Your task to perform on an android device: Go to eBay Image 0: 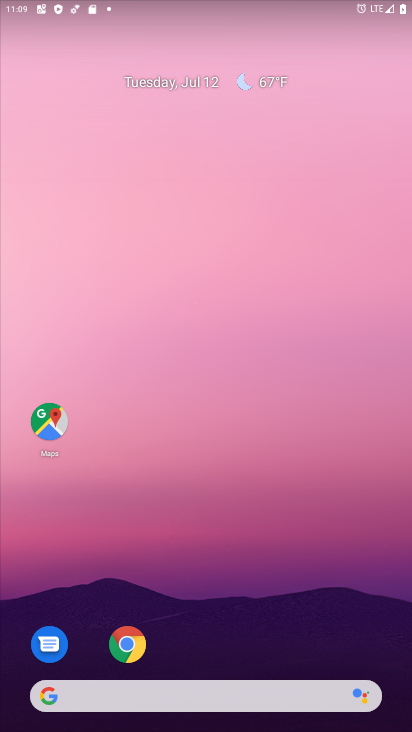
Step 0: drag from (191, 488) to (269, 62)
Your task to perform on an android device: Go to eBay Image 1: 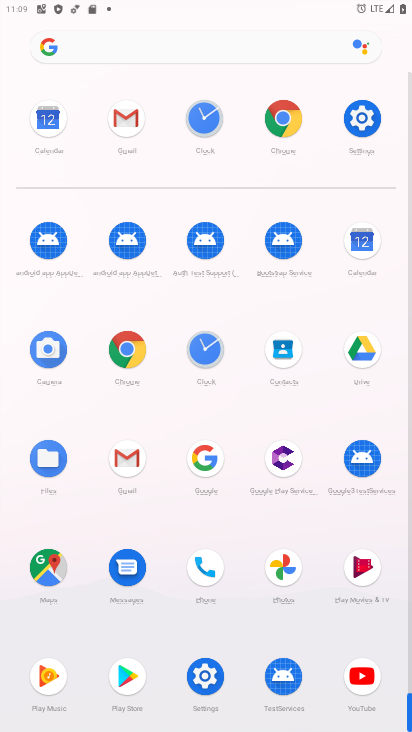
Step 1: click (101, 40)
Your task to perform on an android device: Go to eBay Image 2: 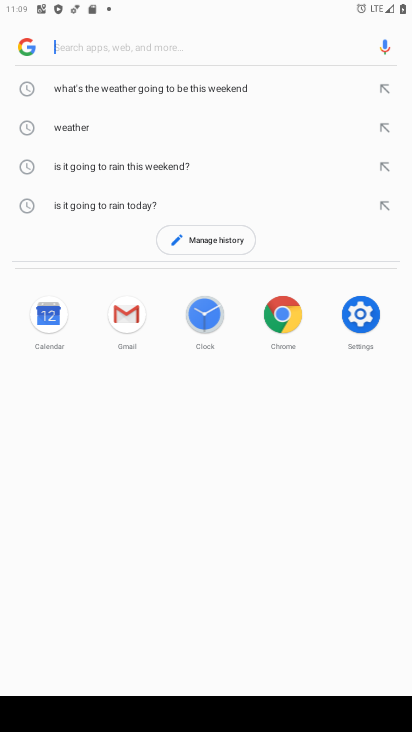
Step 2: type "ebay"
Your task to perform on an android device: Go to eBay Image 3: 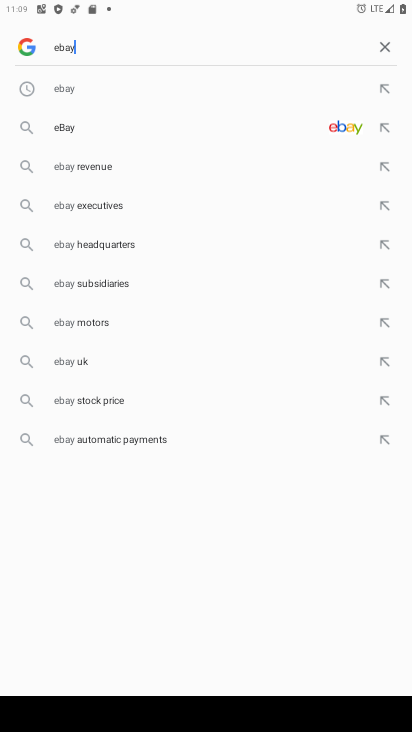
Step 3: click (128, 135)
Your task to perform on an android device: Go to eBay Image 4: 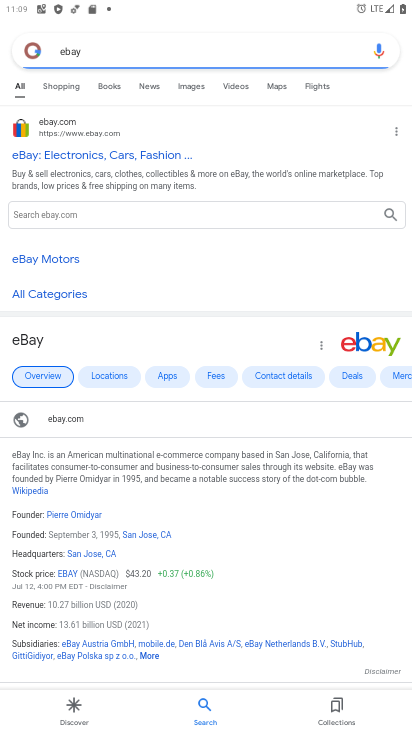
Step 4: drag from (205, 585) to (235, 171)
Your task to perform on an android device: Go to eBay Image 5: 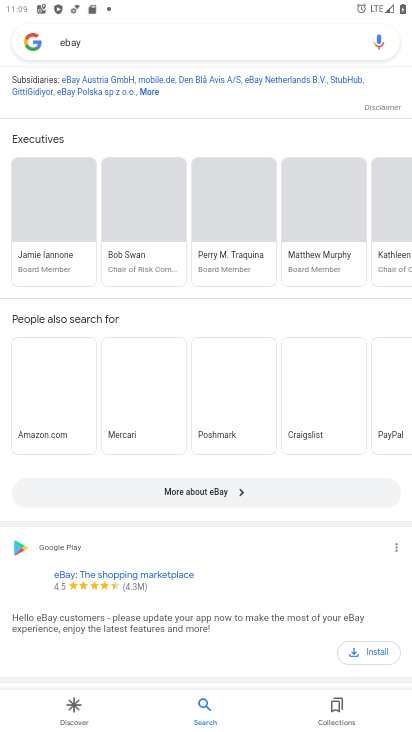
Step 5: drag from (212, 176) to (206, 594)
Your task to perform on an android device: Go to eBay Image 6: 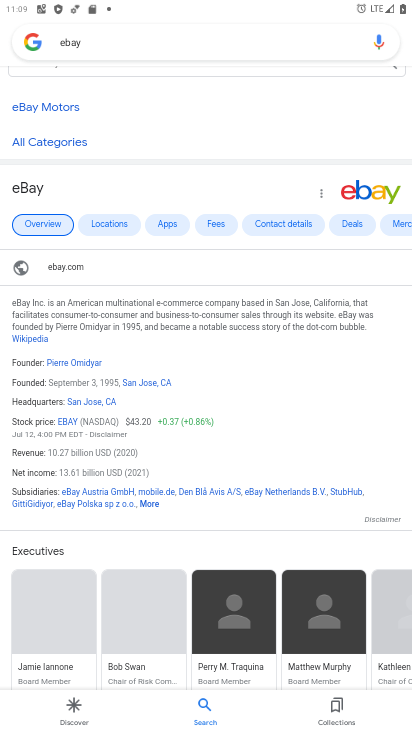
Step 6: drag from (268, 185) to (343, 684)
Your task to perform on an android device: Go to eBay Image 7: 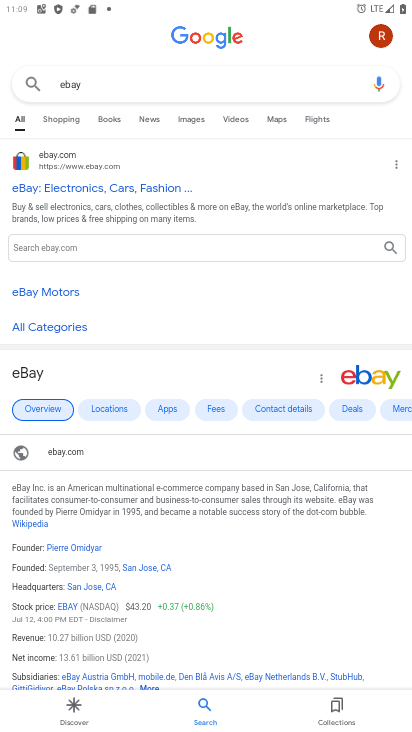
Step 7: drag from (205, 299) to (273, 705)
Your task to perform on an android device: Go to eBay Image 8: 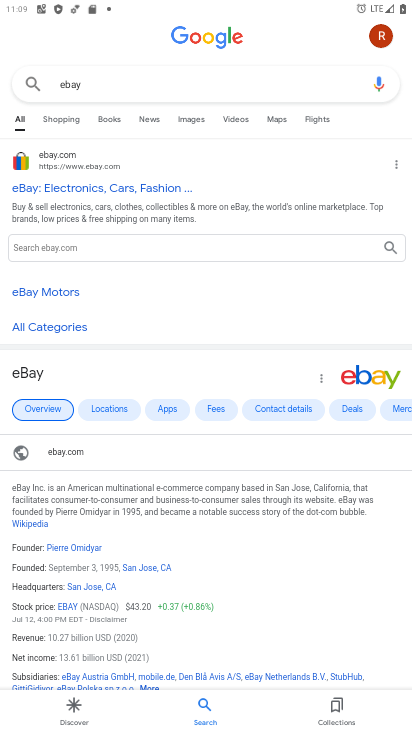
Step 8: click (87, 184)
Your task to perform on an android device: Go to eBay Image 9: 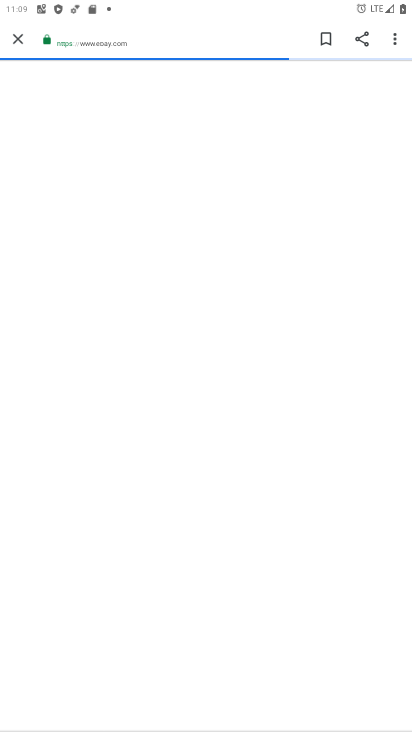
Step 9: task complete